Your task to perform on an android device: Go to wifi settings Image 0: 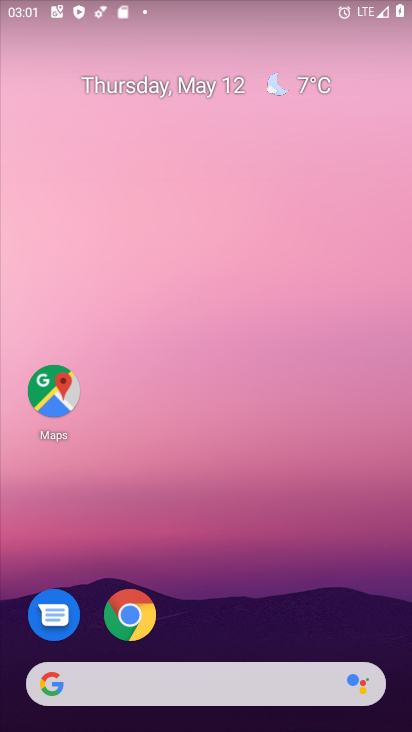
Step 0: drag from (224, 693) to (202, 42)
Your task to perform on an android device: Go to wifi settings Image 1: 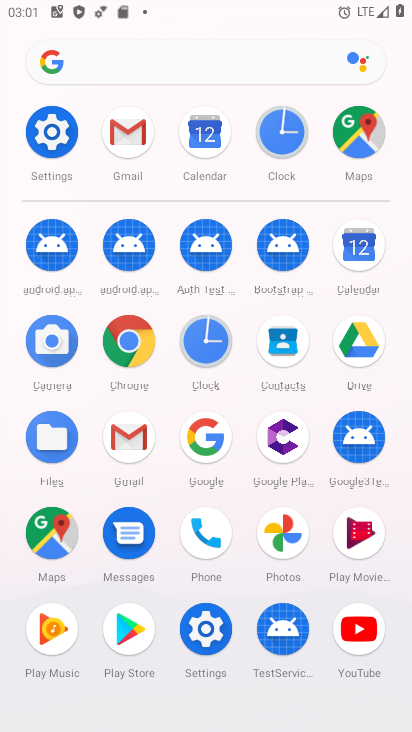
Step 1: click (55, 128)
Your task to perform on an android device: Go to wifi settings Image 2: 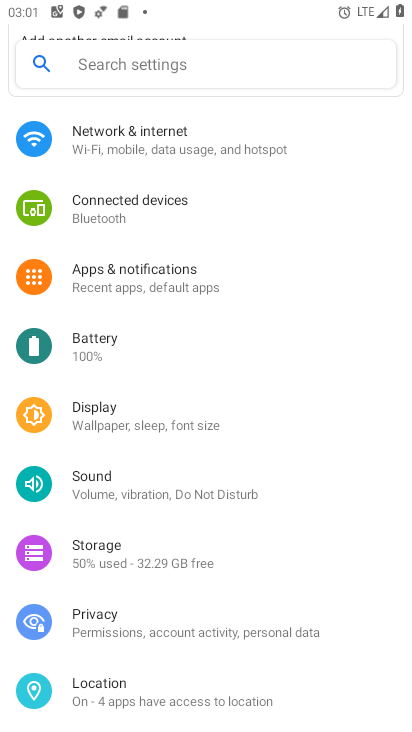
Step 2: click (143, 153)
Your task to perform on an android device: Go to wifi settings Image 3: 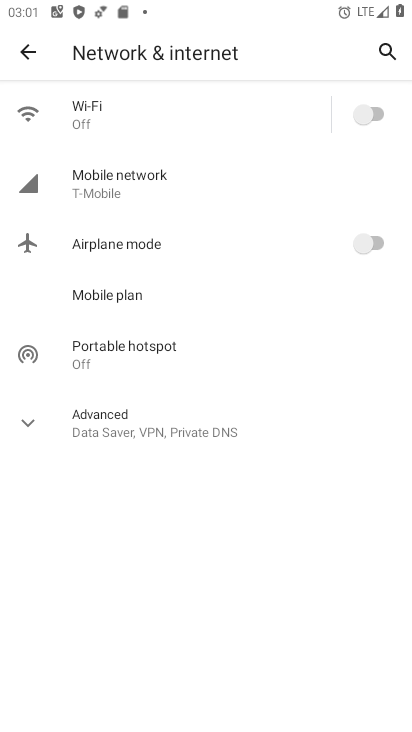
Step 3: click (76, 112)
Your task to perform on an android device: Go to wifi settings Image 4: 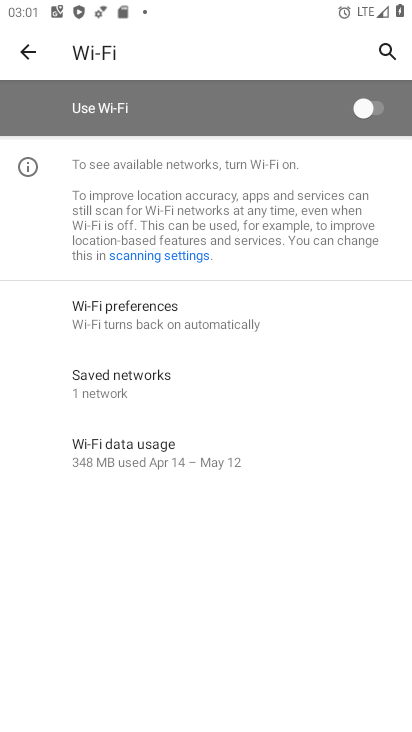
Step 4: task complete